Your task to perform on an android device: open sync settings in chrome Image 0: 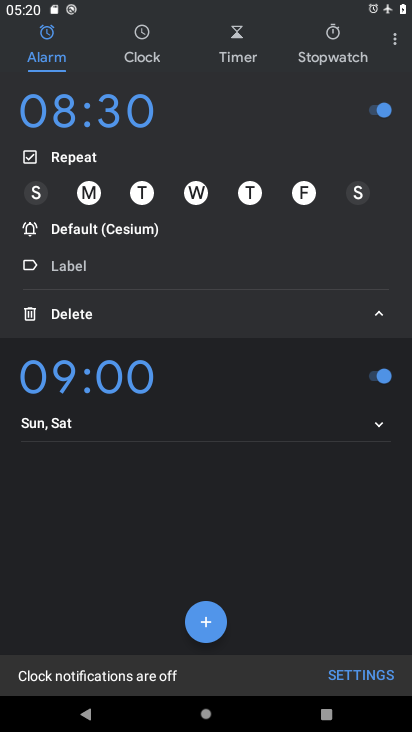
Step 0: press home button
Your task to perform on an android device: open sync settings in chrome Image 1: 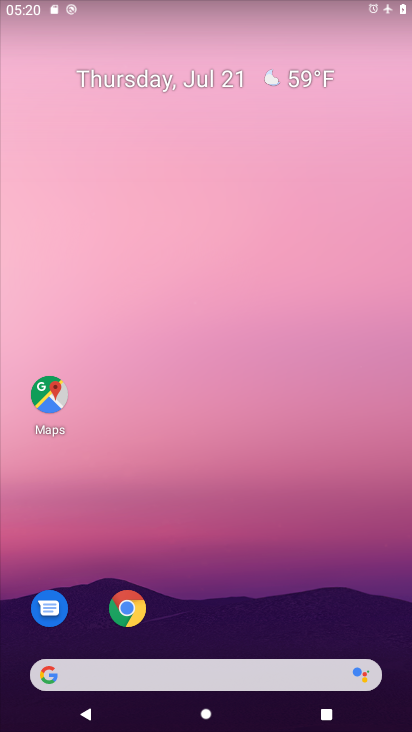
Step 1: drag from (279, 499) to (324, 0)
Your task to perform on an android device: open sync settings in chrome Image 2: 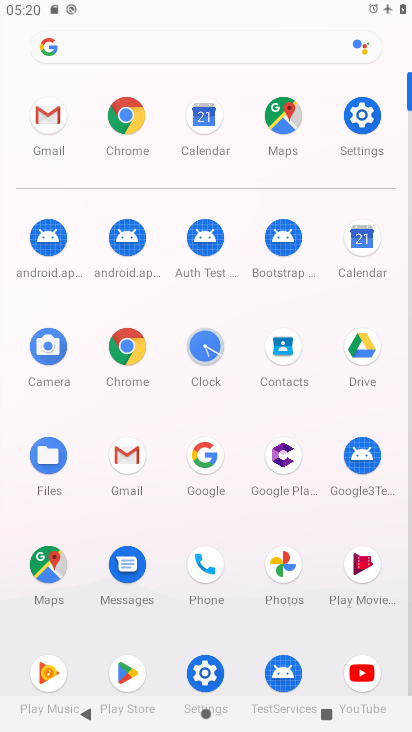
Step 2: click (142, 359)
Your task to perform on an android device: open sync settings in chrome Image 3: 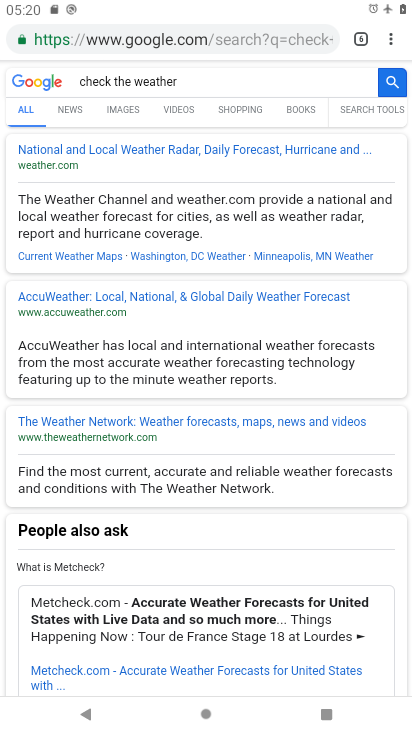
Step 3: drag from (391, 34) to (285, 437)
Your task to perform on an android device: open sync settings in chrome Image 4: 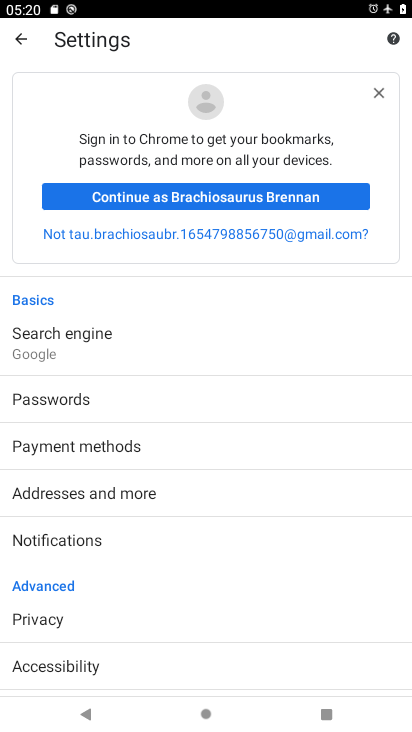
Step 4: drag from (150, 548) to (191, 238)
Your task to perform on an android device: open sync settings in chrome Image 5: 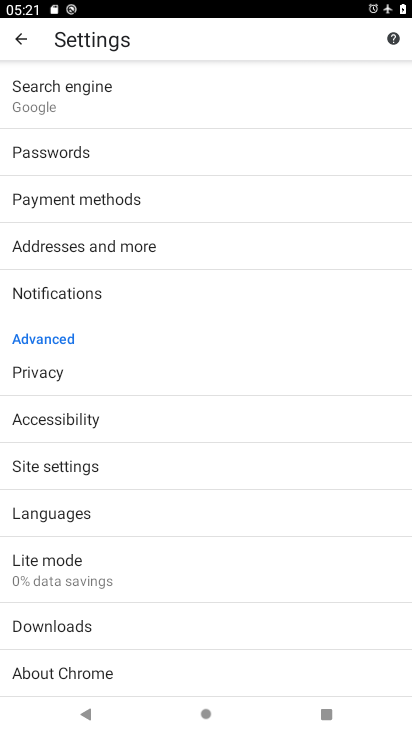
Step 5: click (113, 473)
Your task to perform on an android device: open sync settings in chrome Image 6: 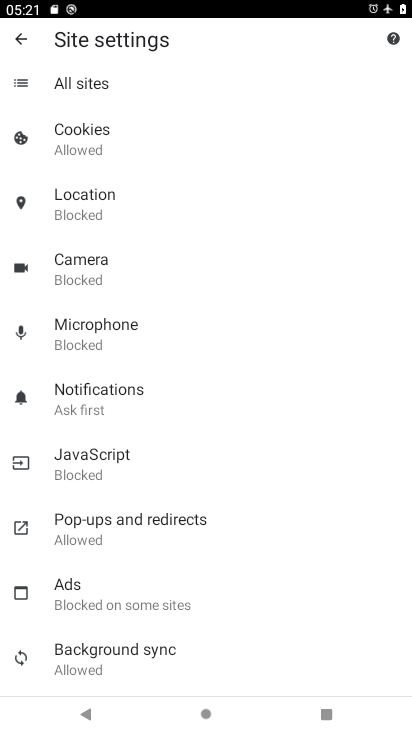
Step 6: click (152, 653)
Your task to perform on an android device: open sync settings in chrome Image 7: 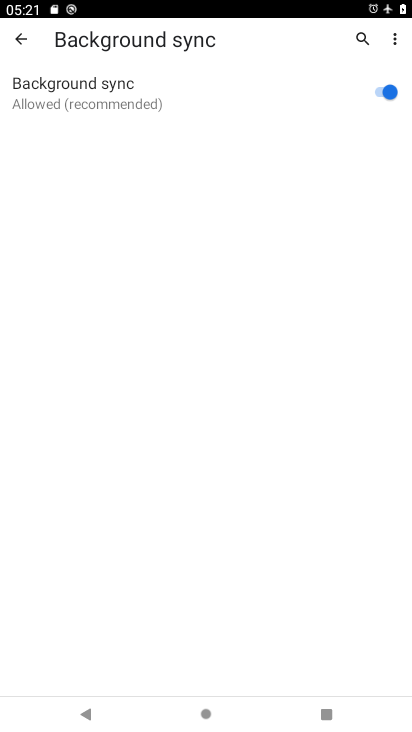
Step 7: task complete